Your task to perform on an android device: turn notification dots on Image 0: 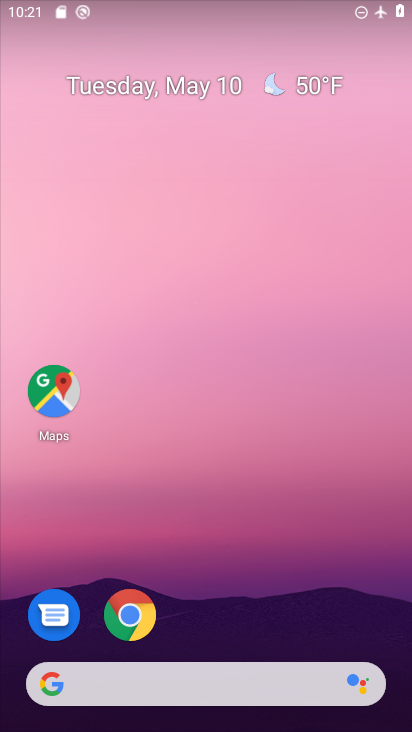
Step 0: drag from (372, 633) to (260, 40)
Your task to perform on an android device: turn notification dots on Image 1: 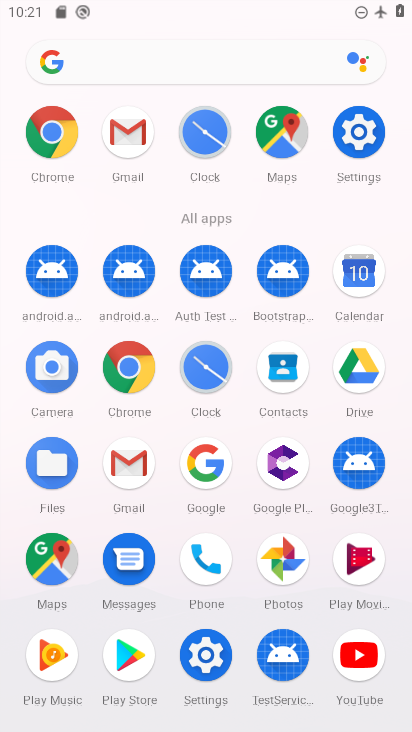
Step 1: click (206, 656)
Your task to perform on an android device: turn notification dots on Image 2: 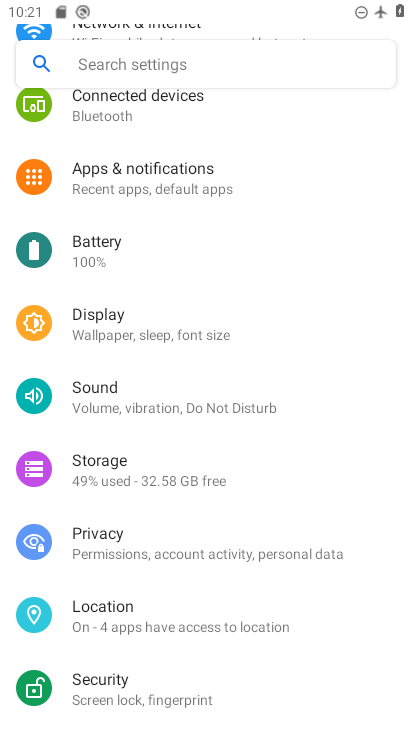
Step 2: click (110, 160)
Your task to perform on an android device: turn notification dots on Image 3: 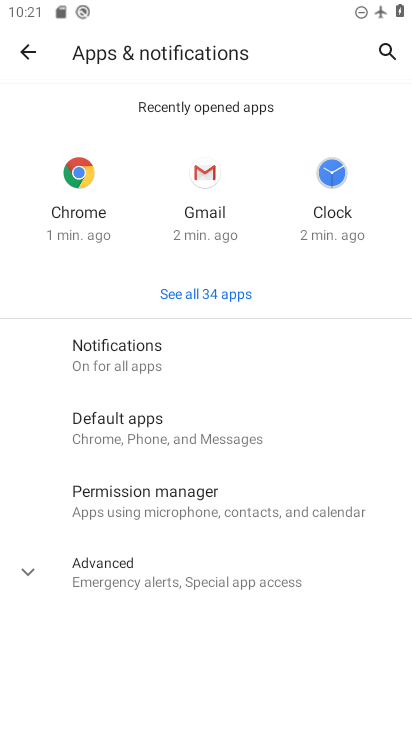
Step 3: click (100, 348)
Your task to perform on an android device: turn notification dots on Image 4: 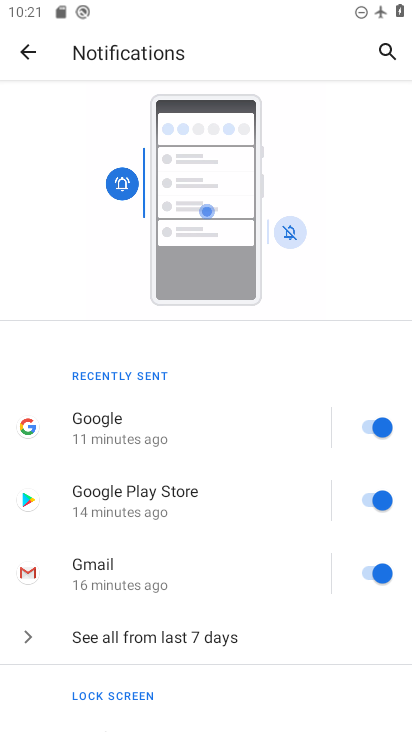
Step 4: drag from (275, 663) to (292, 189)
Your task to perform on an android device: turn notification dots on Image 5: 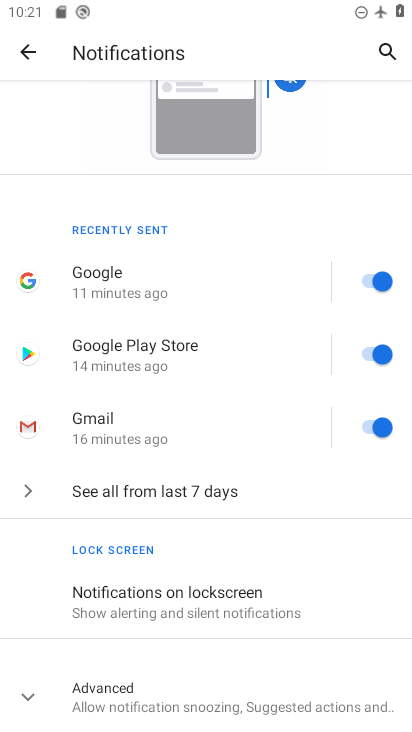
Step 5: click (23, 693)
Your task to perform on an android device: turn notification dots on Image 6: 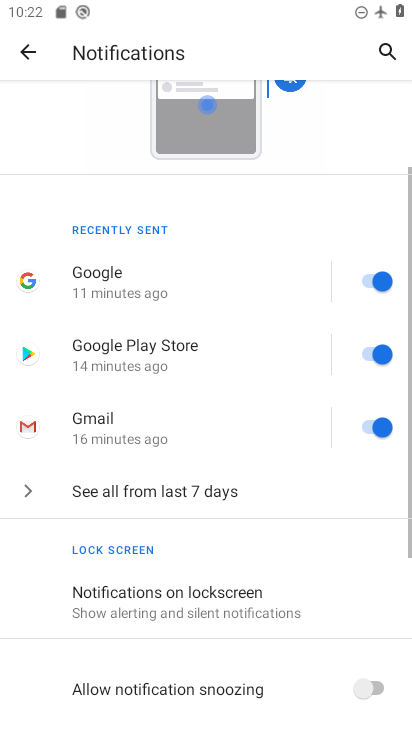
Step 6: task complete